Your task to perform on an android device: all mails in gmail Image 0: 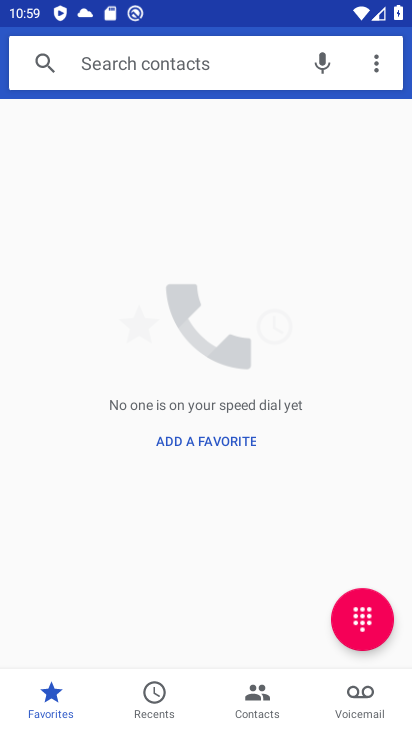
Step 0: press home button
Your task to perform on an android device: all mails in gmail Image 1: 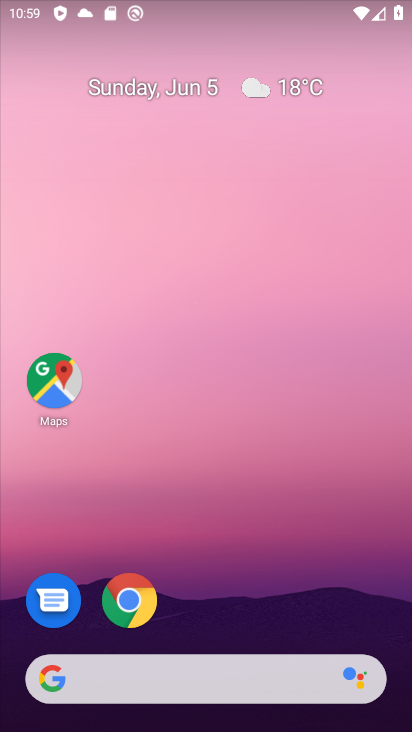
Step 1: drag from (211, 657) to (282, 150)
Your task to perform on an android device: all mails in gmail Image 2: 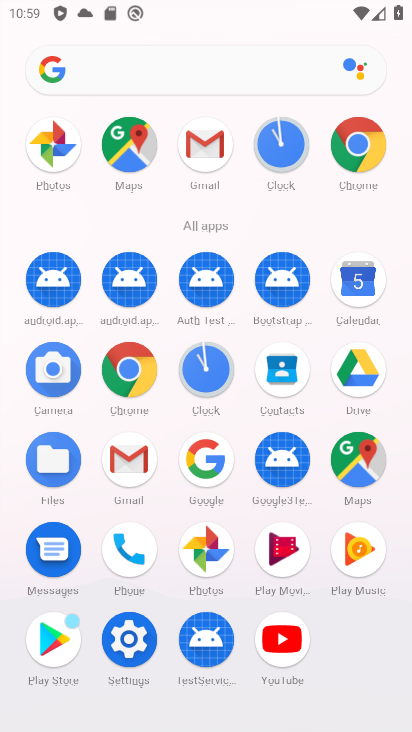
Step 2: click (115, 447)
Your task to perform on an android device: all mails in gmail Image 3: 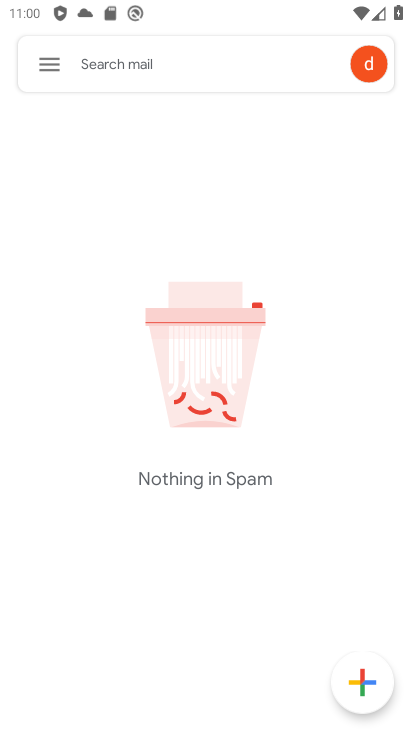
Step 3: click (57, 82)
Your task to perform on an android device: all mails in gmail Image 4: 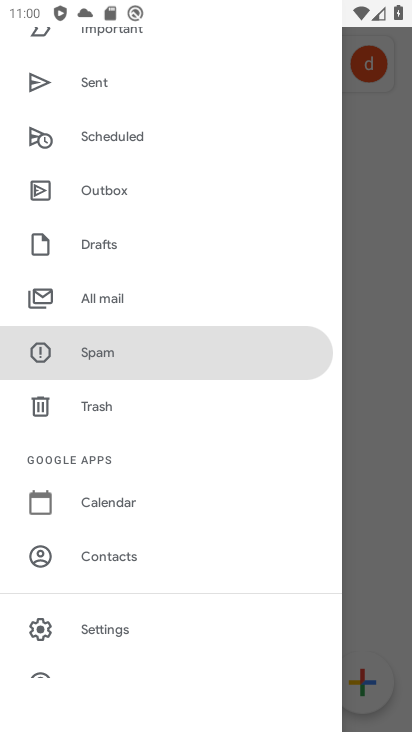
Step 4: click (131, 306)
Your task to perform on an android device: all mails in gmail Image 5: 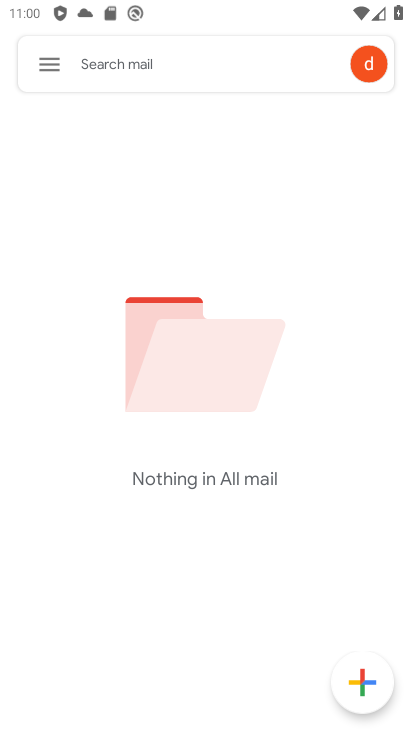
Step 5: task complete